Your task to perform on an android device: turn notification dots on Image 0: 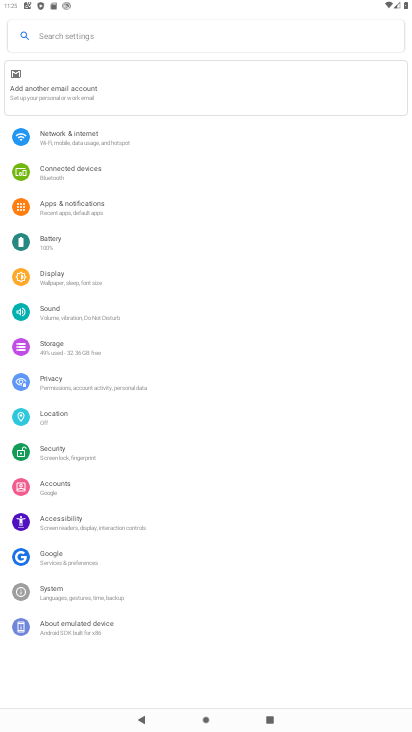
Step 0: task complete